Your task to perform on an android device: open wifi settings Image 0: 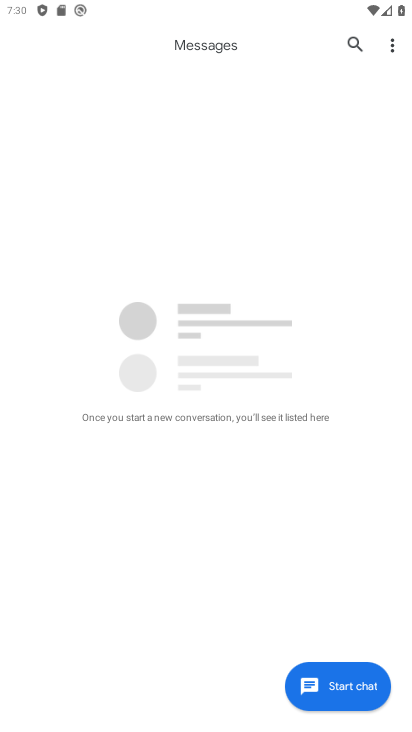
Step 0: drag from (218, 541) to (278, 32)
Your task to perform on an android device: open wifi settings Image 1: 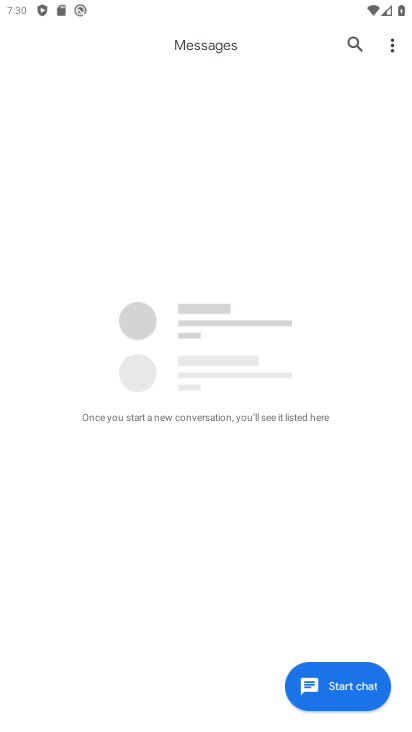
Step 1: click (164, 447)
Your task to perform on an android device: open wifi settings Image 2: 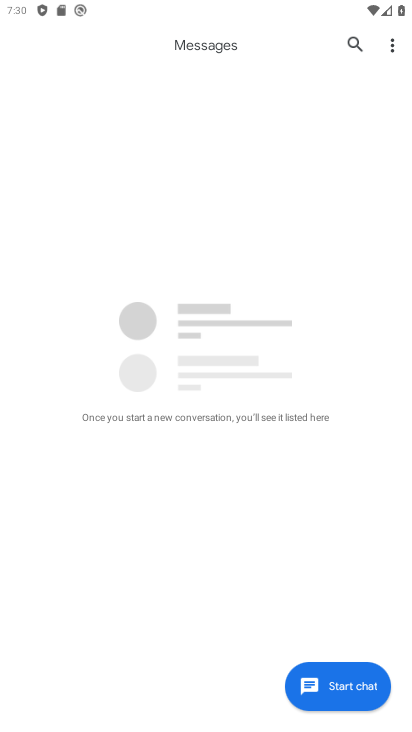
Step 2: press home button
Your task to perform on an android device: open wifi settings Image 3: 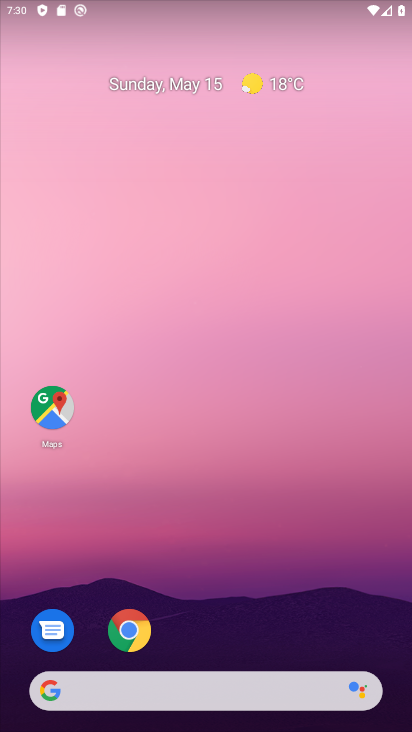
Step 3: drag from (268, 587) to (358, 135)
Your task to perform on an android device: open wifi settings Image 4: 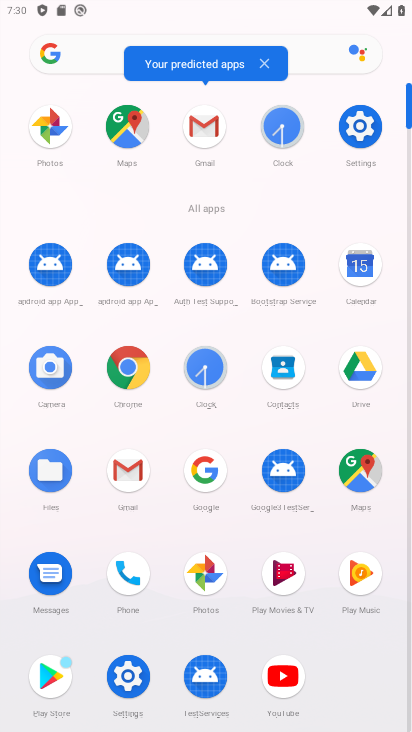
Step 4: click (360, 114)
Your task to perform on an android device: open wifi settings Image 5: 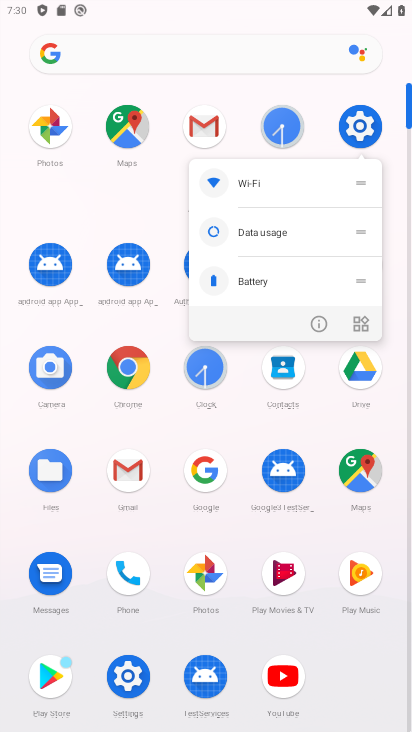
Step 5: click (313, 323)
Your task to perform on an android device: open wifi settings Image 6: 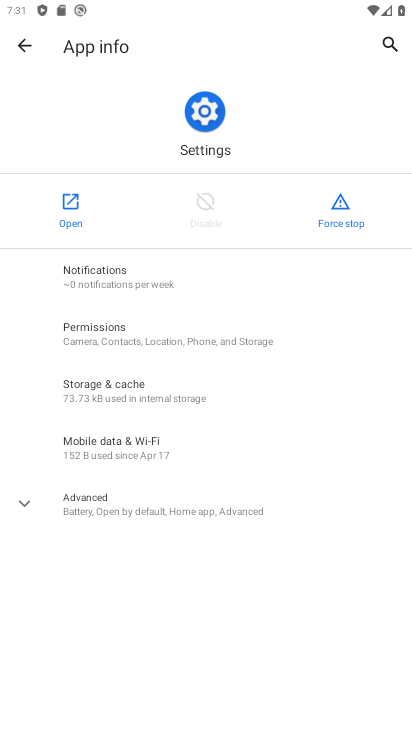
Step 6: click (71, 211)
Your task to perform on an android device: open wifi settings Image 7: 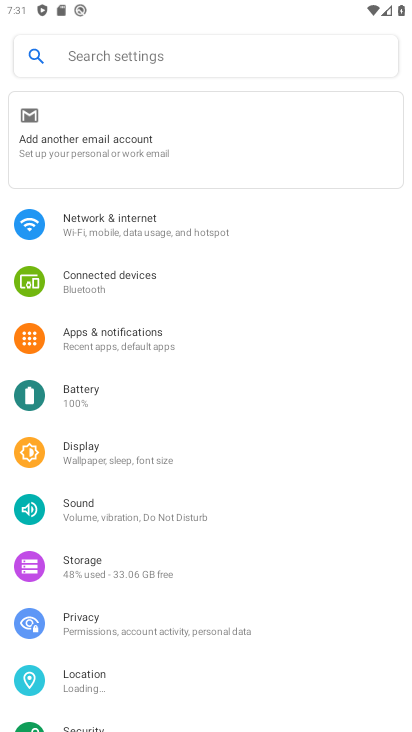
Step 7: drag from (135, 122) to (313, 13)
Your task to perform on an android device: open wifi settings Image 8: 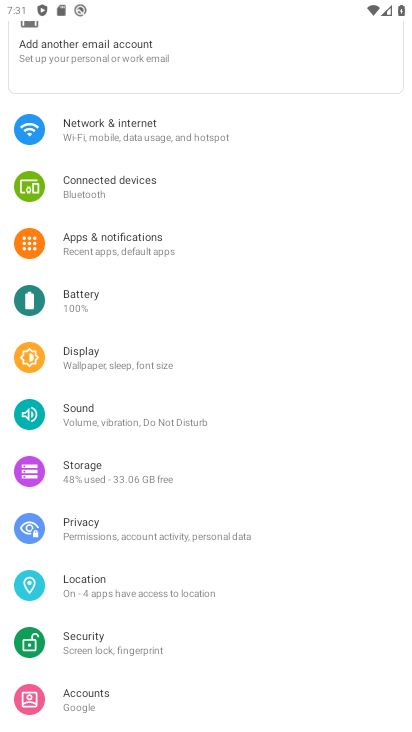
Step 8: click (185, 124)
Your task to perform on an android device: open wifi settings Image 9: 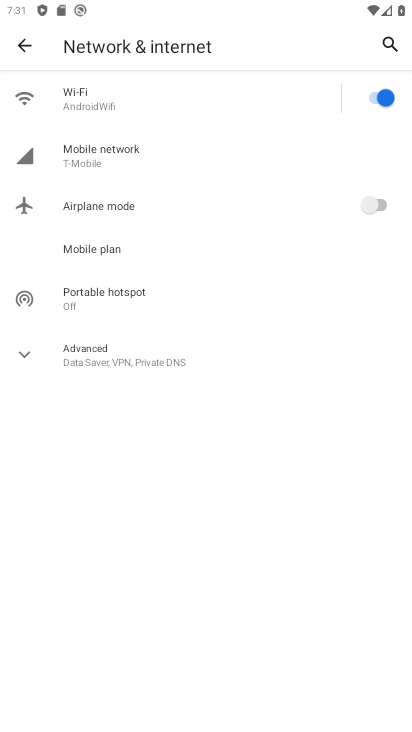
Step 9: click (111, 117)
Your task to perform on an android device: open wifi settings Image 10: 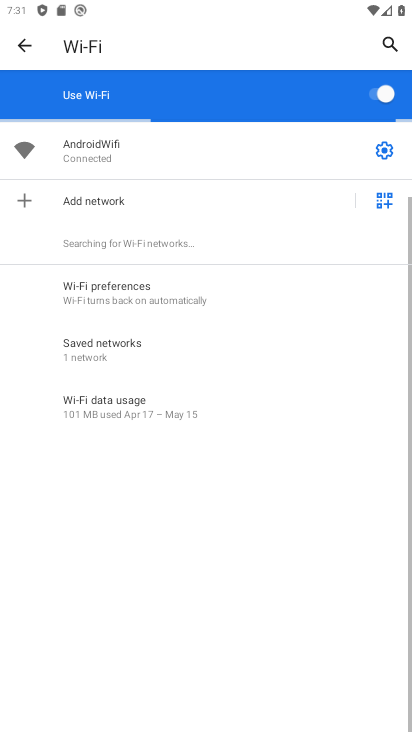
Step 10: drag from (225, 649) to (379, 101)
Your task to perform on an android device: open wifi settings Image 11: 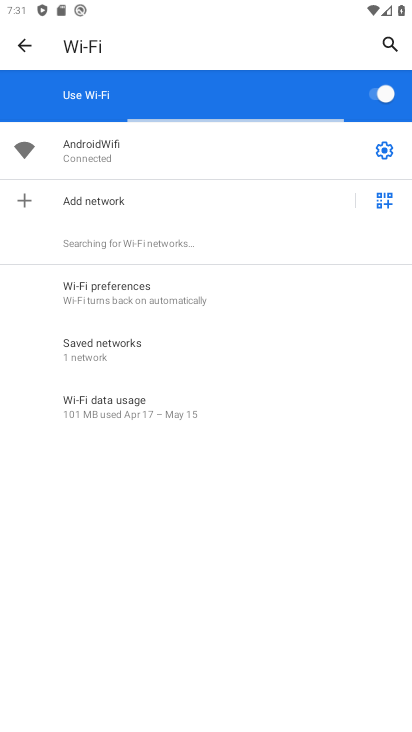
Step 11: click (387, 146)
Your task to perform on an android device: open wifi settings Image 12: 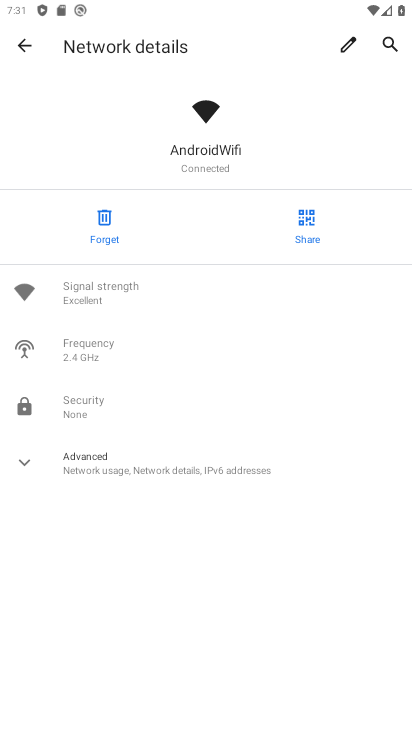
Step 12: click (289, 233)
Your task to perform on an android device: open wifi settings Image 13: 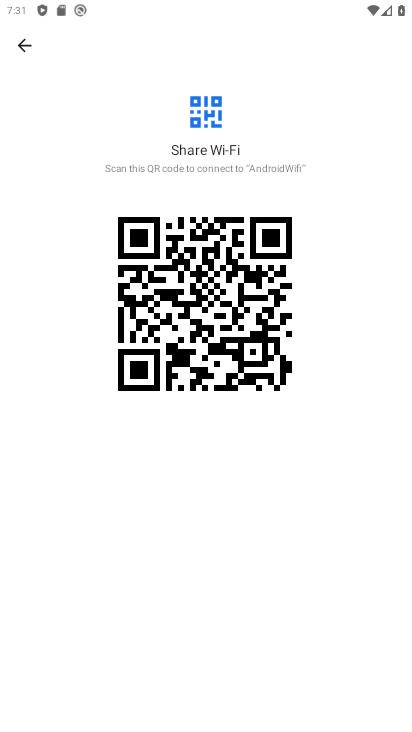
Step 13: click (8, 39)
Your task to perform on an android device: open wifi settings Image 14: 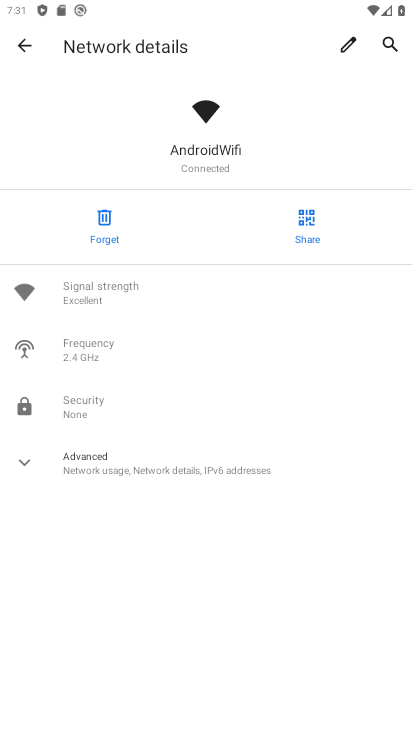
Step 14: task complete